Your task to perform on an android device: Toggle the flashlight Image 0: 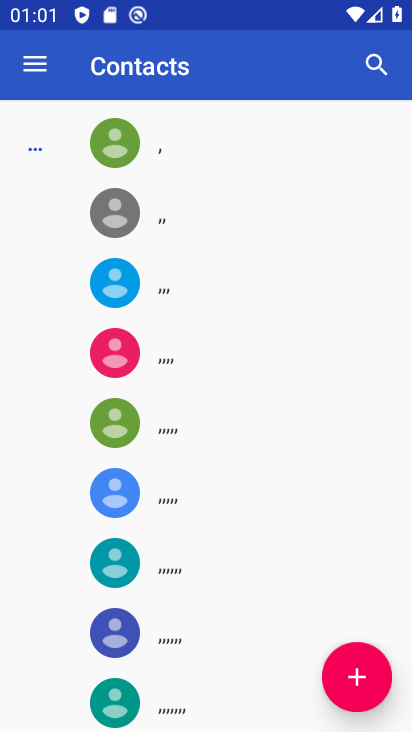
Step 0: press home button
Your task to perform on an android device: Toggle the flashlight Image 1: 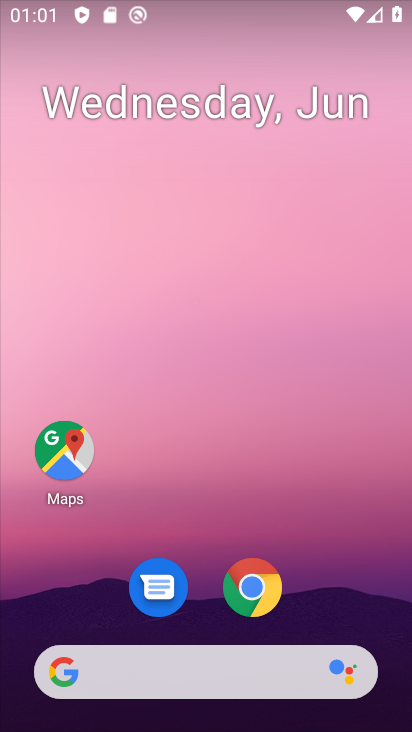
Step 1: drag from (323, 590) to (288, 225)
Your task to perform on an android device: Toggle the flashlight Image 2: 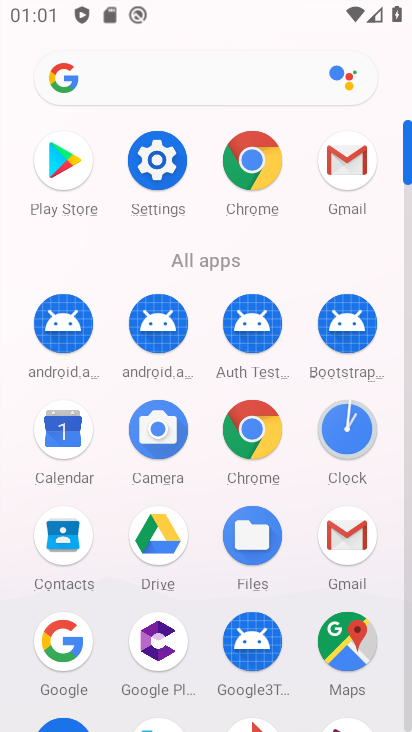
Step 2: click (165, 169)
Your task to perform on an android device: Toggle the flashlight Image 3: 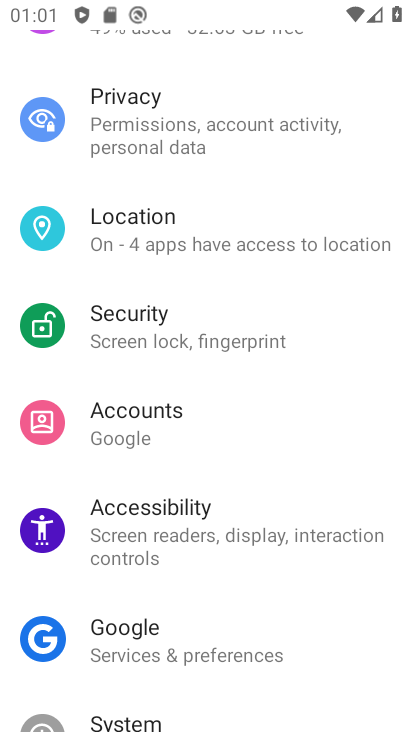
Step 3: drag from (180, 141) to (280, 546)
Your task to perform on an android device: Toggle the flashlight Image 4: 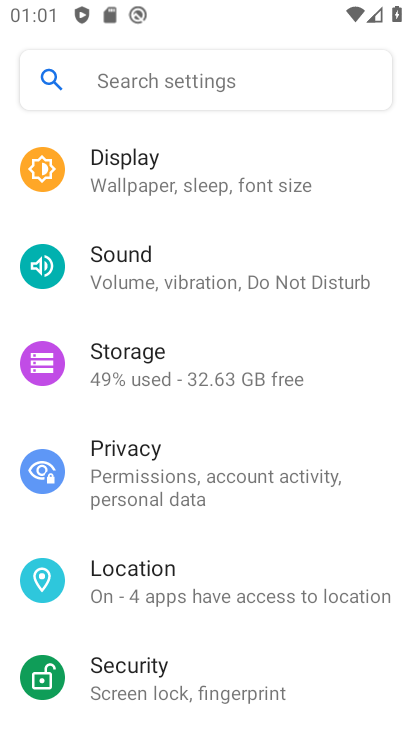
Step 4: click (177, 188)
Your task to perform on an android device: Toggle the flashlight Image 5: 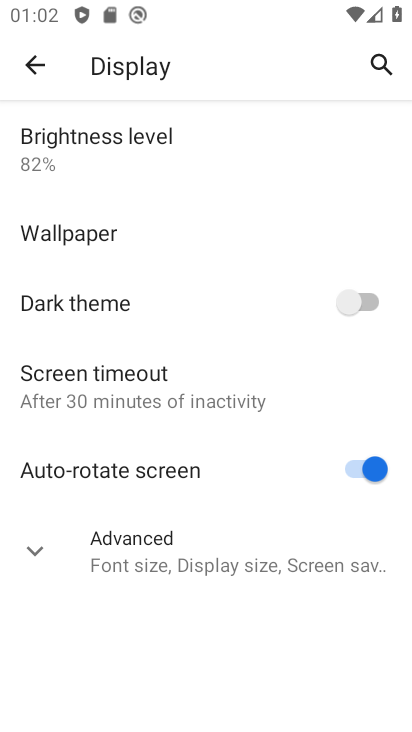
Step 5: task complete